Your task to perform on an android device: add a label to a message in the gmail app Image 0: 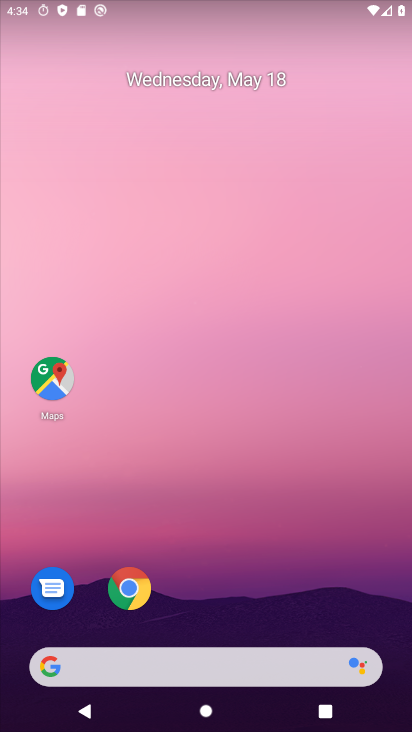
Step 0: drag from (279, 584) to (271, 87)
Your task to perform on an android device: add a label to a message in the gmail app Image 1: 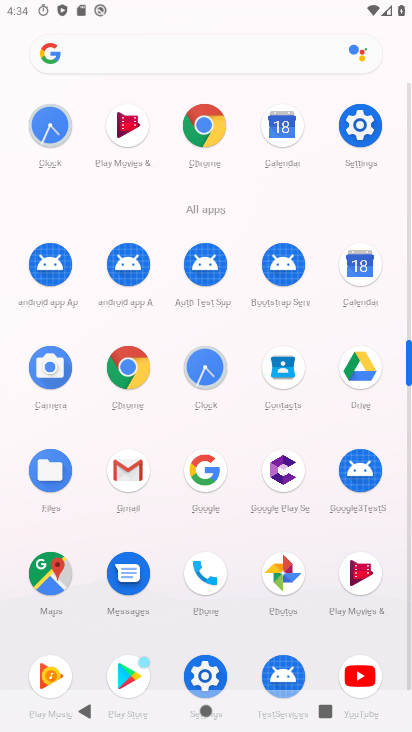
Step 1: click (130, 472)
Your task to perform on an android device: add a label to a message in the gmail app Image 2: 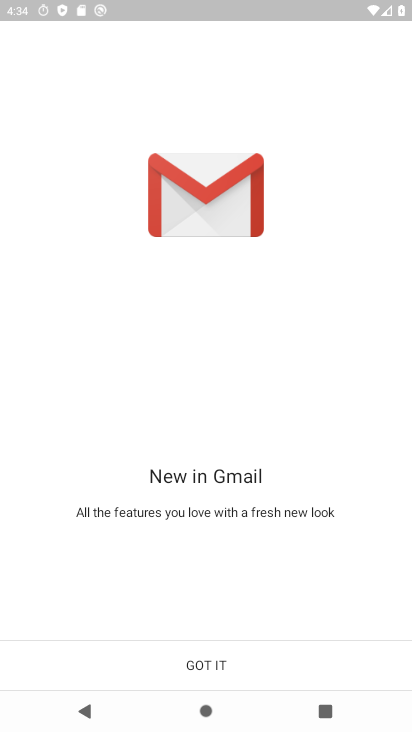
Step 2: click (239, 660)
Your task to perform on an android device: add a label to a message in the gmail app Image 3: 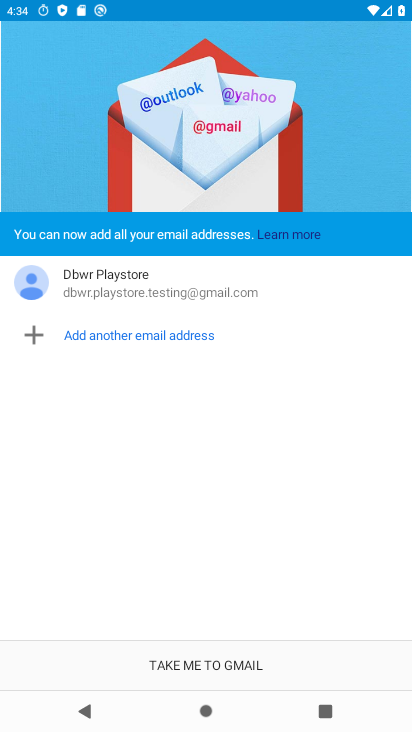
Step 3: click (239, 660)
Your task to perform on an android device: add a label to a message in the gmail app Image 4: 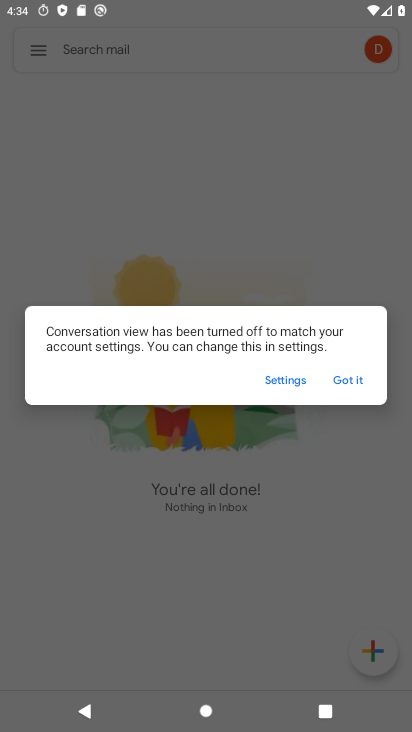
Step 4: click (337, 374)
Your task to perform on an android device: add a label to a message in the gmail app Image 5: 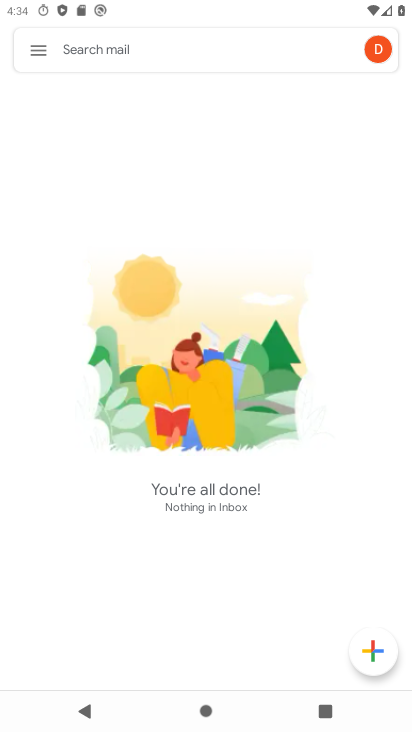
Step 5: task complete